Your task to perform on an android device: Is it going to rain today? Image 0: 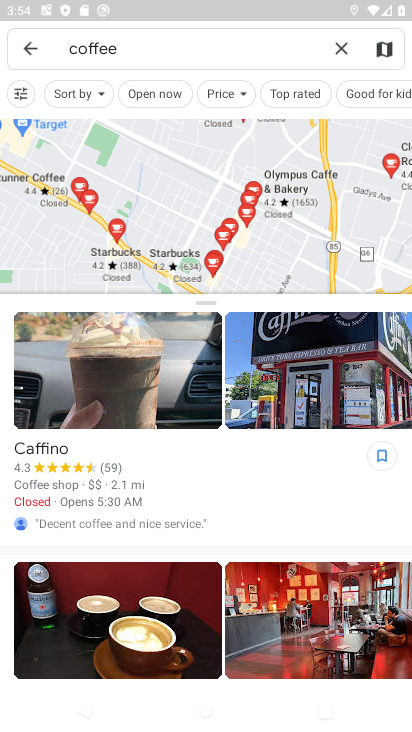
Step 0: press home button
Your task to perform on an android device: Is it going to rain today? Image 1: 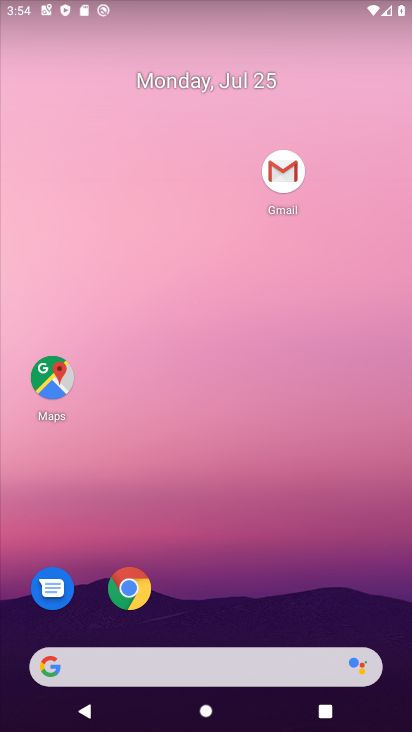
Step 1: drag from (340, 615) to (207, 37)
Your task to perform on an android device: Is it going to rain today? Image 2: 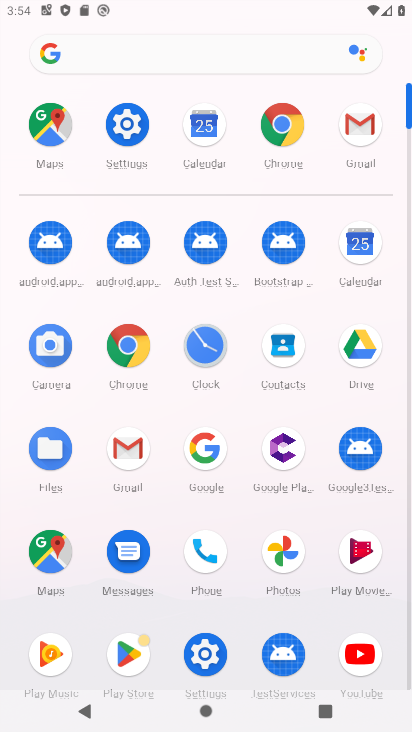
Step 2: click (285, 121)
Your task to perform on an android device: Is it going to rain today? Image 3: 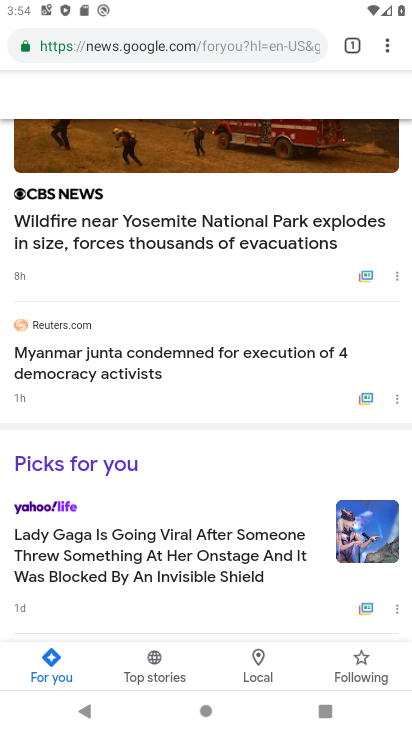
Step 3: click (142, 40)
Your task to perform on an android device: Is it going to rain today? Image 4: 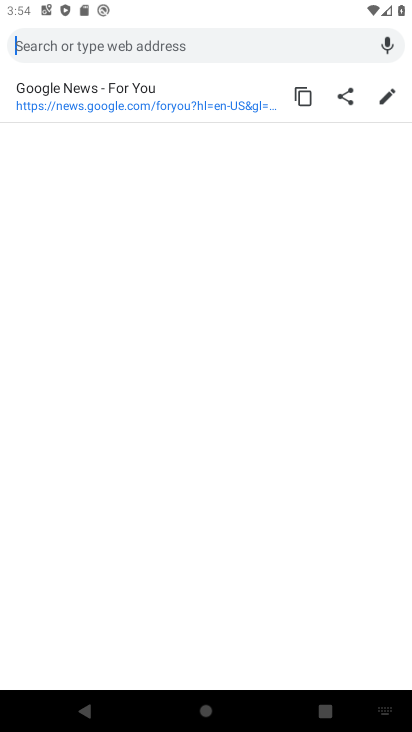
Step 4: type "weather"
Your task to perform on an android device: Is it going to rain today? Image 5: 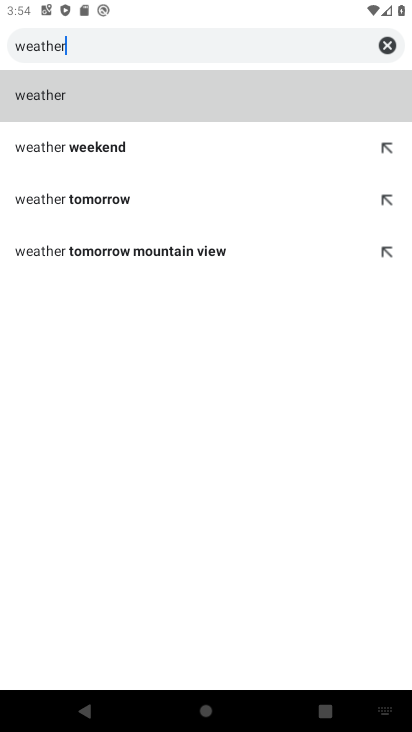
Step 5: click (124, 100)
Your task to perform on an android device: Is it going to rain today? Image 6: 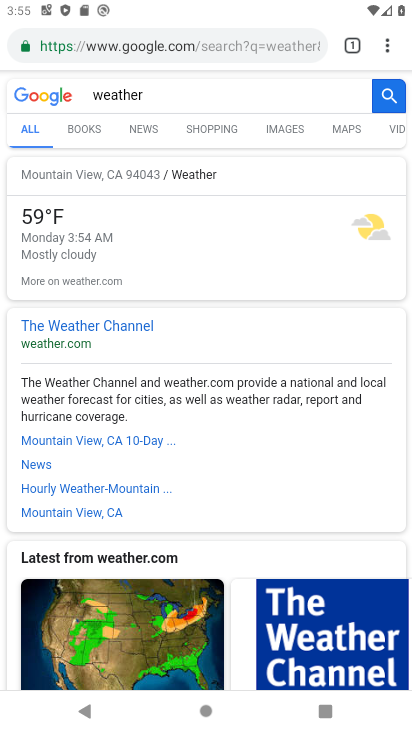
Step 6: task complete